Your task to perform on an android device: turn off airplane mode Image 0: 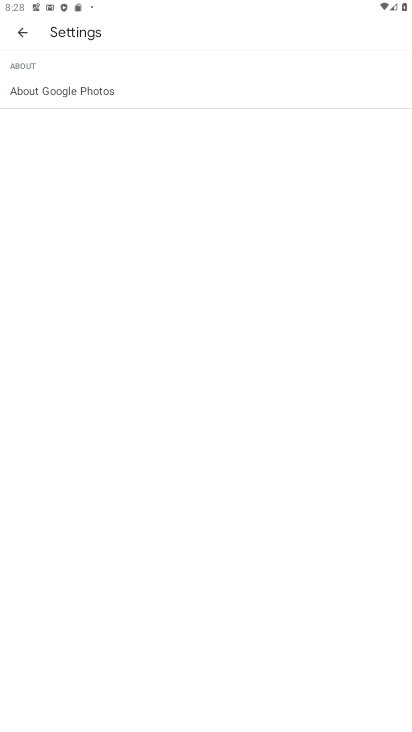
Step 0: press home button
Your task to perform on an android device: turn off airplane mode Image 1: 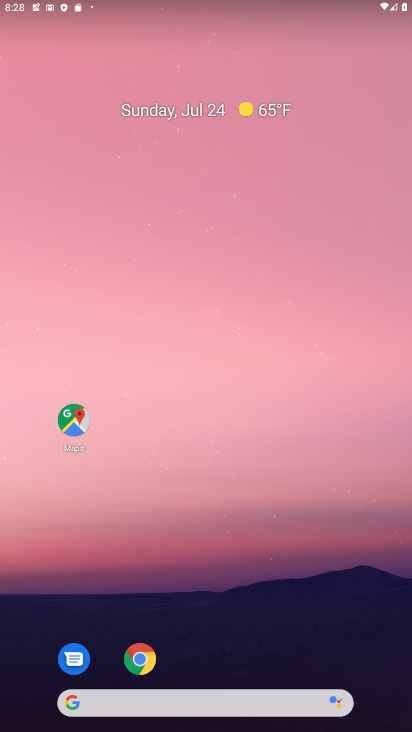
Step 1: drag from (244, 679) to (270, 49)
Your task to perform on an android device: turn off airplane mode Image 2: 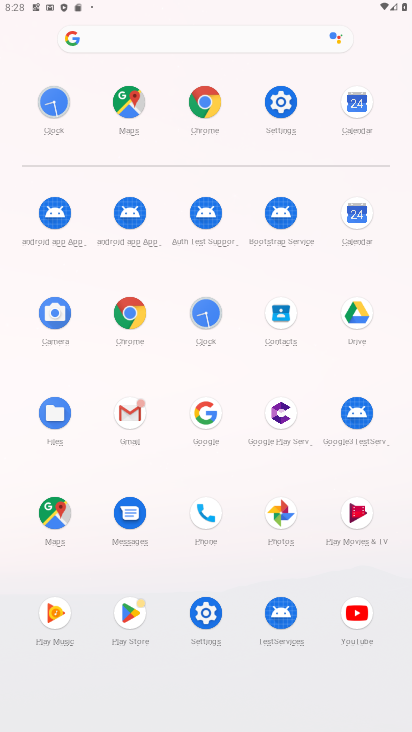
Step 2: click (275, 112)
Your task to perform on an android device: turn off airplane mode Image 3: 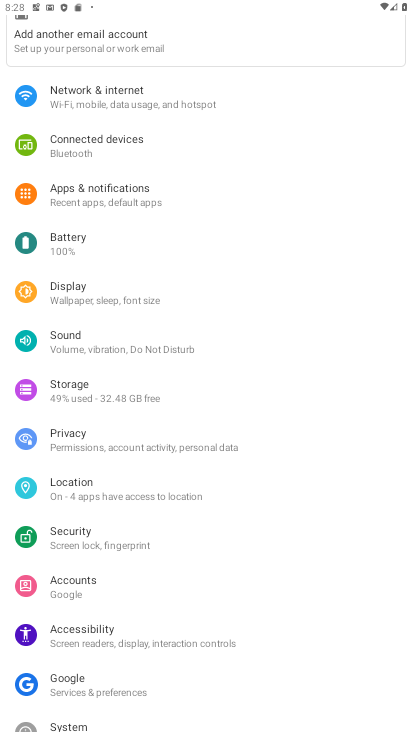
Step 3: click (107, 119)
Your task to perform on an android device: turn off airplane mode Image 4: 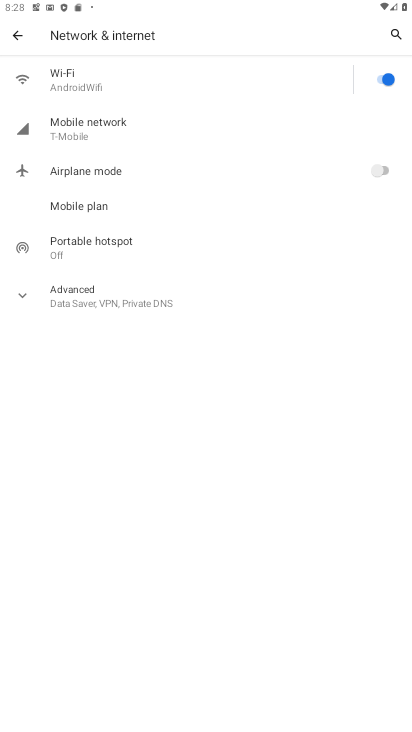
Step 4: task complete